Your task to perform on an android device: Do I have any events today? Image 0: 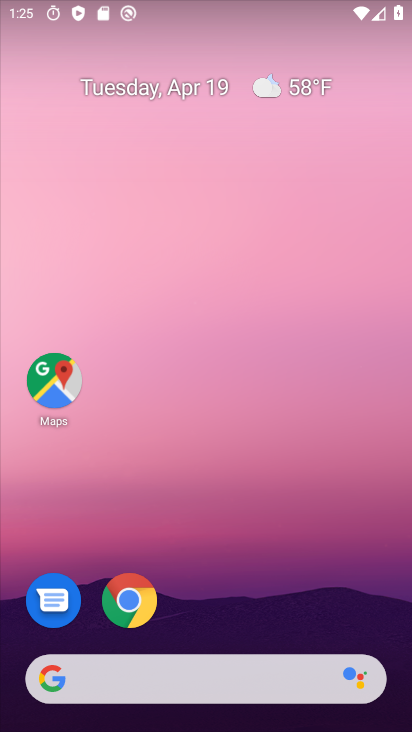
Step 0: drag from (267, 693) to (372, 170)
Your task to perform on an android device: Do I have any events today? Image 1: 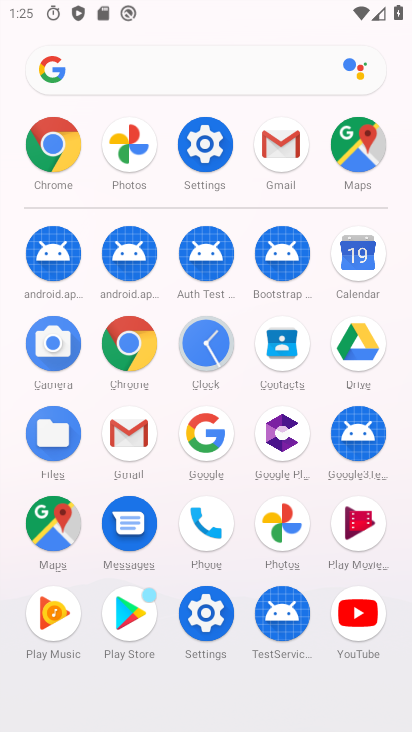
Step 1: click (336, 262)
Your task to perform on an android device: Do I have any events today? Image 2: 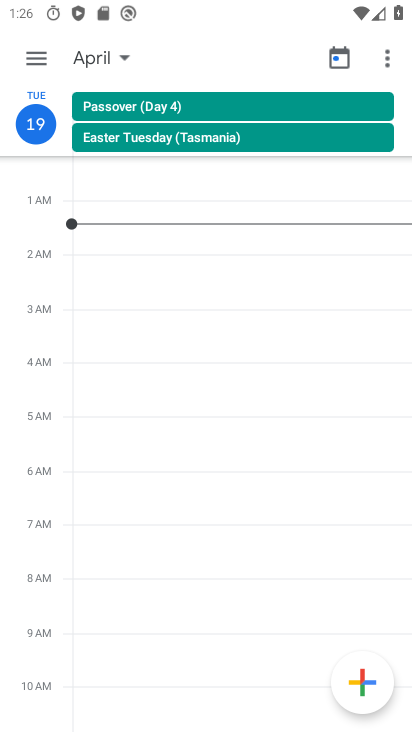
Step 2: task complete